Your task to perform on an android device: Open display settings Image 0: 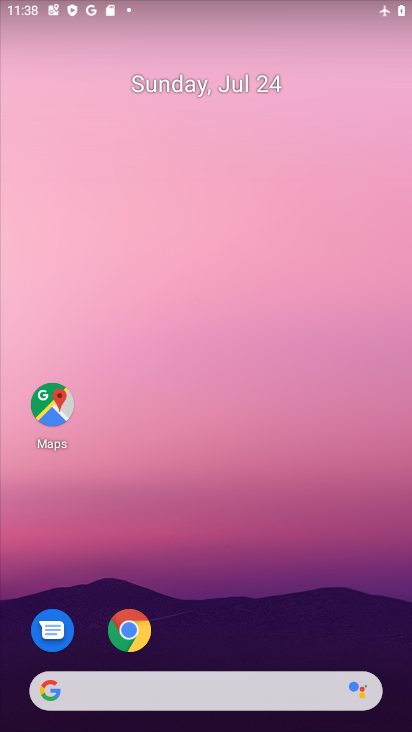
Step 0: drag from (178, 544) to (299, 2)
Your task to perform on an android device: Open display settings Image 1: 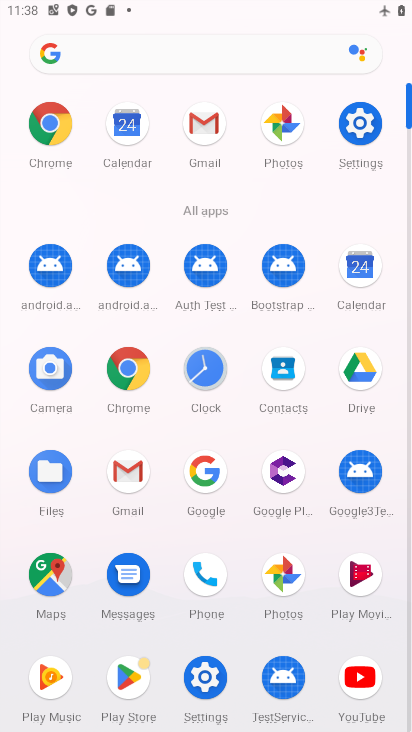
Step 1: click (372, 115)
Your task to perform on an android device: Open display settings Image 2: 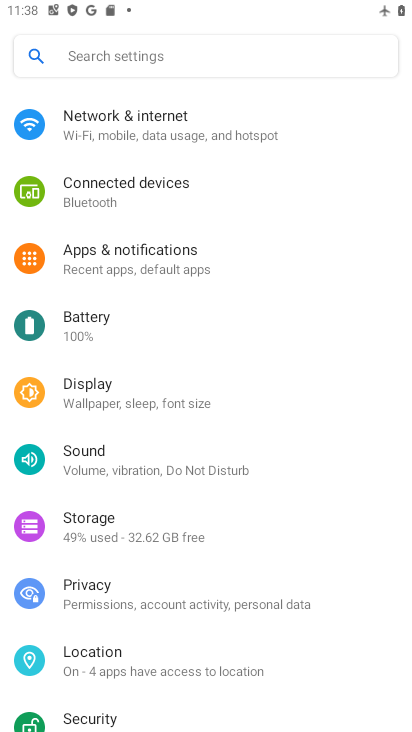
Step 2: click (148, 396)
Your task to perform on an android device: Open display settings Image 3: 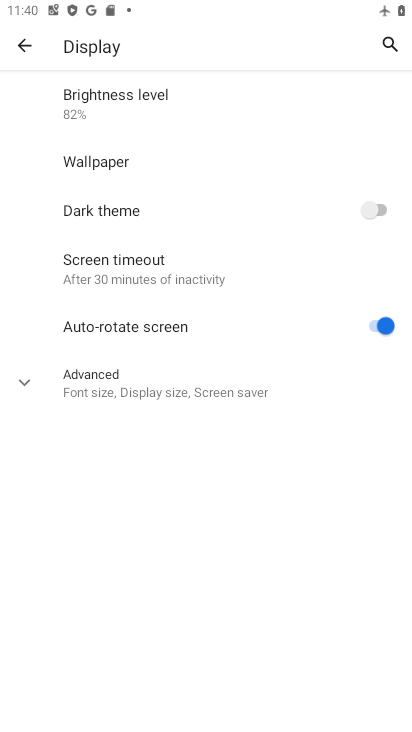
Step 3: task complete